Your task to perform on an android device: Search for seafood restaurants on Google Maps Image 0: 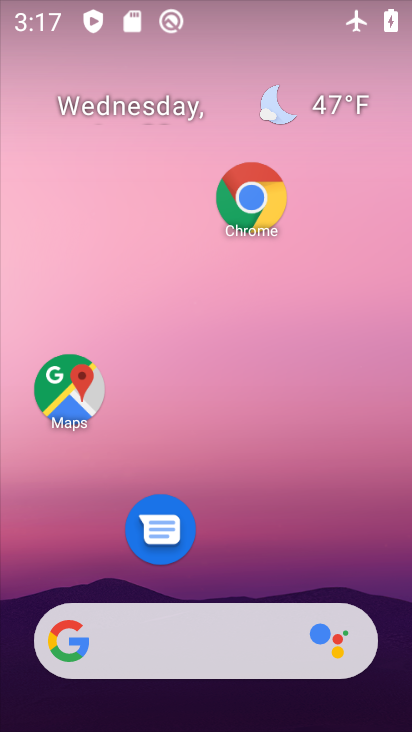
Step 0: click (76, 399)
Your task to perform on an android device: Search for seafood restaurants on Google Maps Image 1: 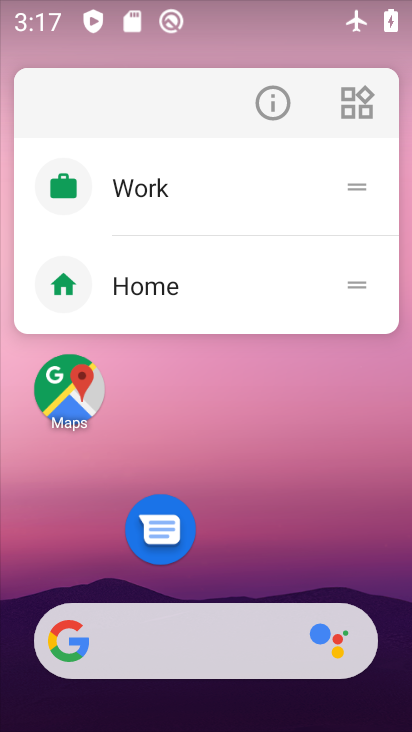
Step 1: click (74, 384)
Your task to perform on an android device: Search for seafood restaurants on Google Maps Image 2: 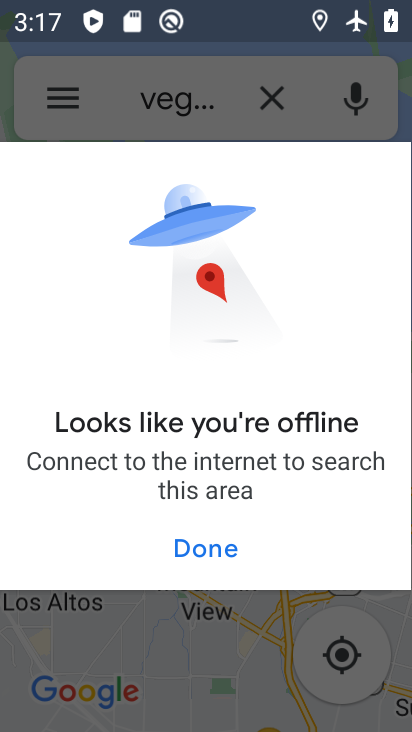
Step 2: task complete